Your task to perform on an android device: toggle notification dots Image 0: 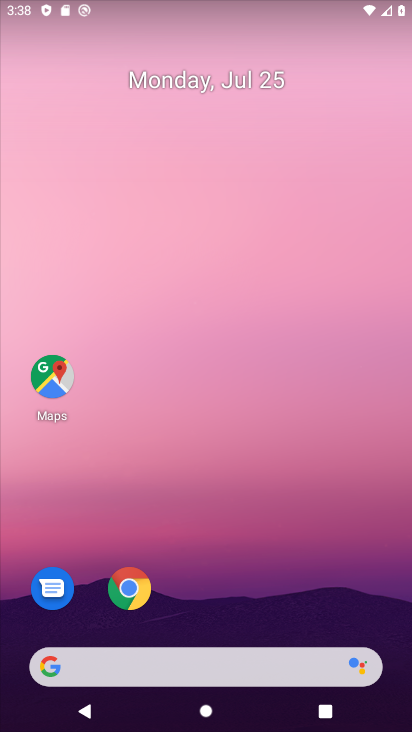
Step 0: drag from (233, 716) to (220, 83)
Your task to perform on an android device: toggle notification dots Image 1: 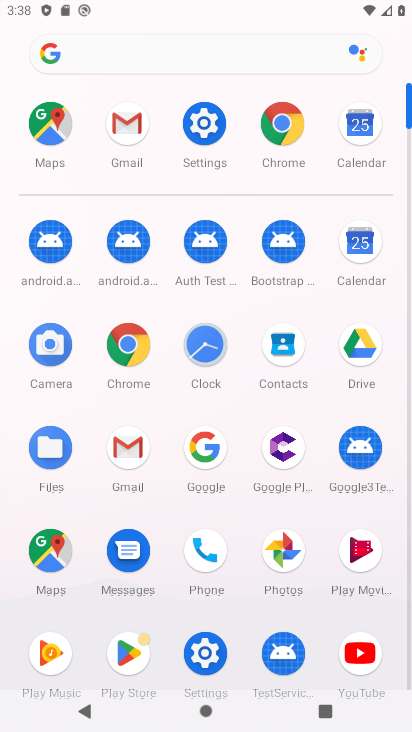
Step 1: click (209, 120)
Your task to perform on an android device: toggle notification dots Image 2: 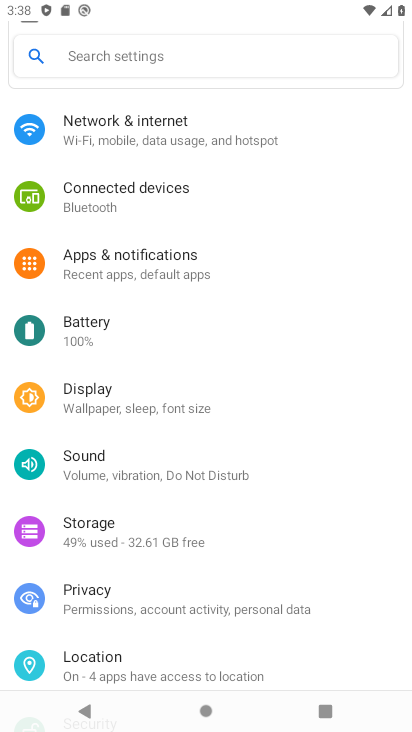
Step 2: click (125, 256)
Your task to perform on an android device: toggle notification dots Image 3: 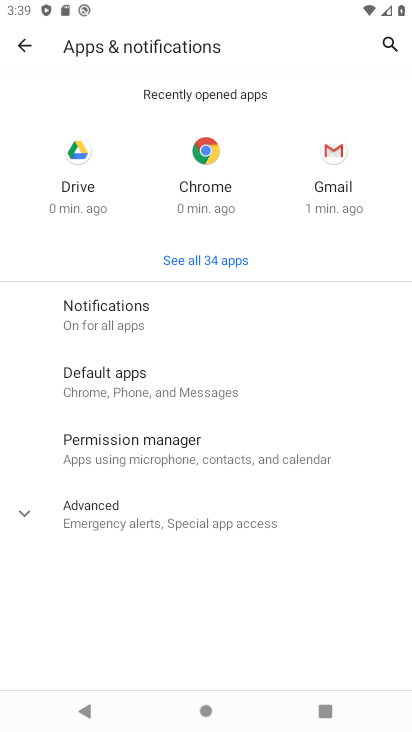
Step 3: click (102, 303)
Your task to perform on an android device: toggle notification dots Image 4: 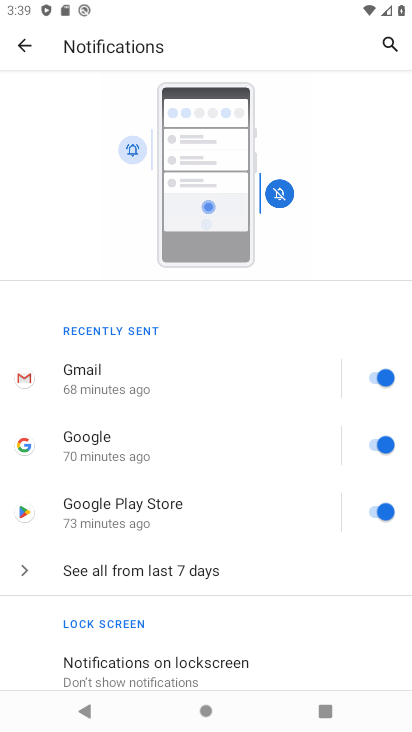
Step 4: drag from (281, 646) to (278, 328)
Your task to perform on an android device: toggle notification dots Image 5: 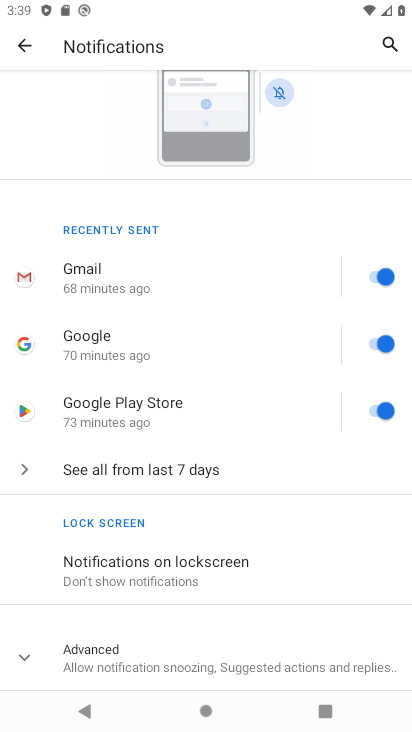
Step 5: drag from (199, 615) to (193, 277)
Your task to perform on an android device: toggle notification dots Image 6: 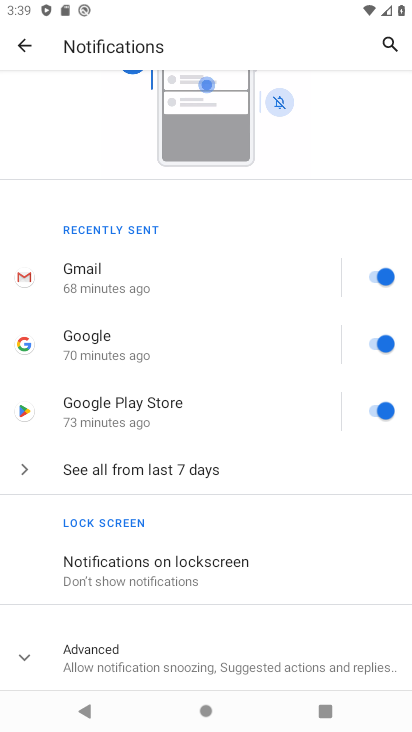
Step 6: click (118, 656)
Your task to perform on an android device: toggle notification dots Image 7: 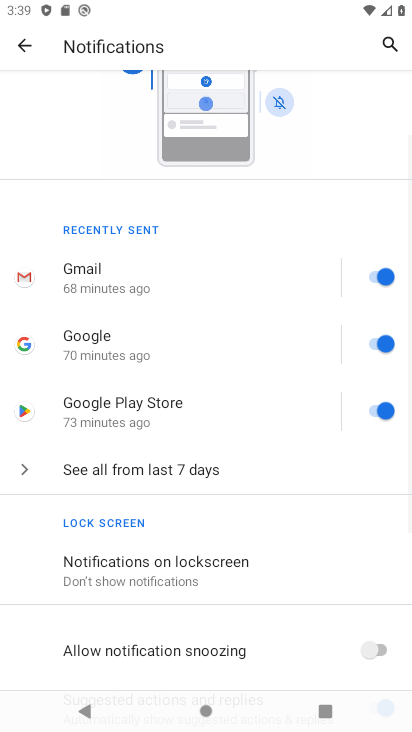
Step 7: drag from (294, 660) to (281, 320)
Your task to perform on an android device: toggle notification dots Image 8: 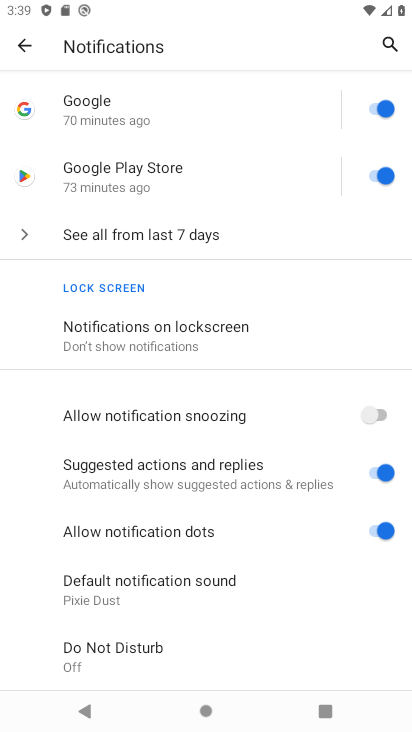
Step 8: click (374, 528)
Your task to perform on an android device: toggle notification dots Image 9: 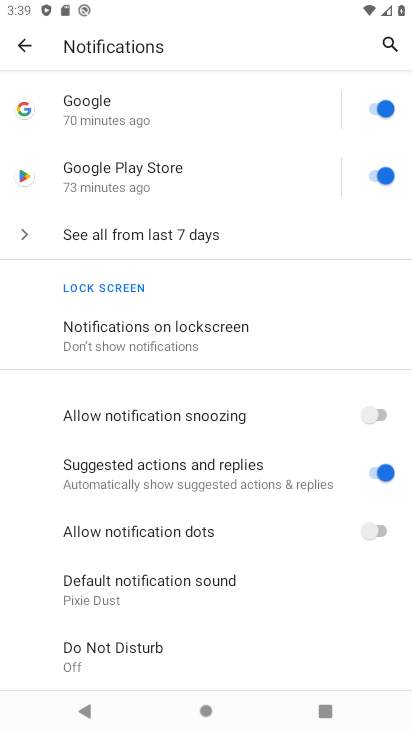
Step 9: task complete